Your task to perform on an android device: change notification settings in the gmail app Image 0: 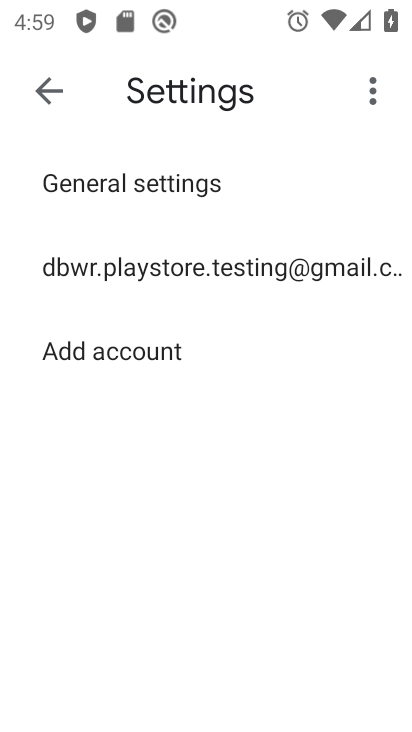
Step 0: press home button
Your task to perform on an android device: change notification settings in the gmail app Image 1: 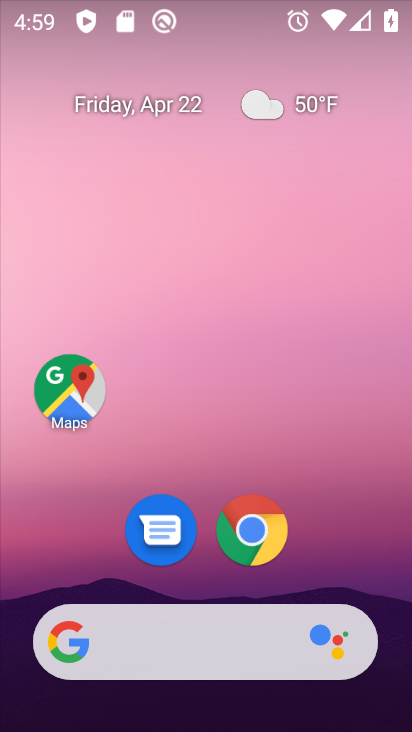
Step 1: drag from (357, 545) to (367, 123)
Your task to perform on an android device: change notification settings in the gmail app Image 2: 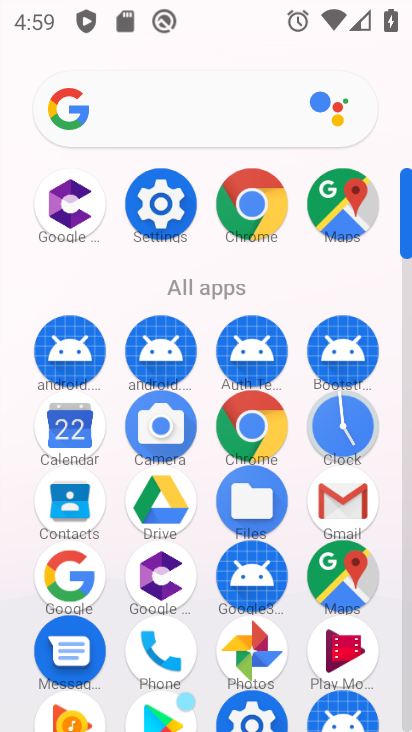
Step 2: drag from (290, 293) to (296, 58)
Your task to perform on an android device: change notification settings in the gmail app Image 3: 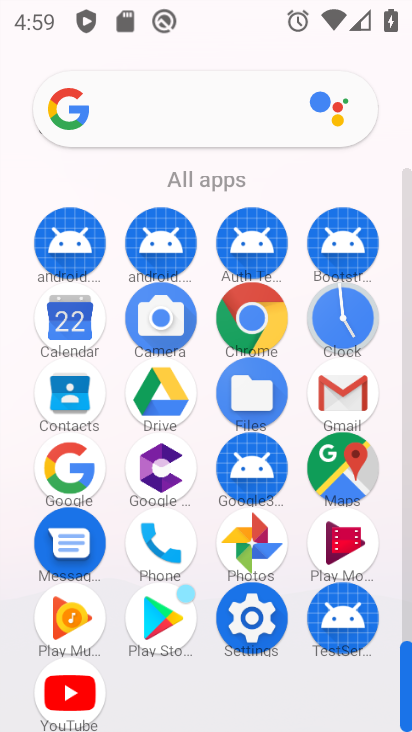
Step 3: click (347, 386)
Your task to perform on an android device: change notification settings in the gmail app Image 4: 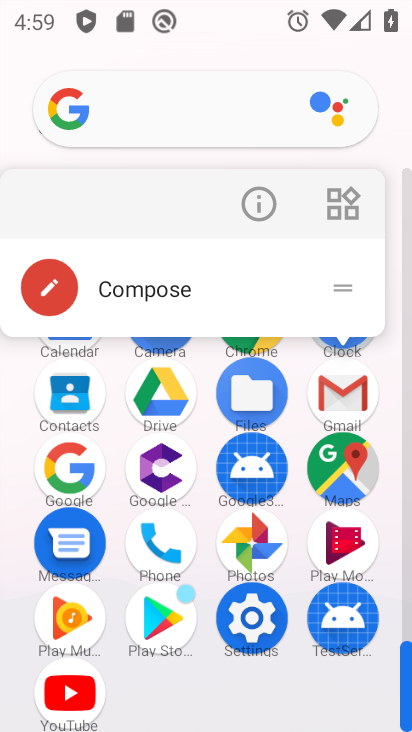
Step 4: click (259, 202)
Your task to perform on an android device: change notification settings in the gmail app Image 5: 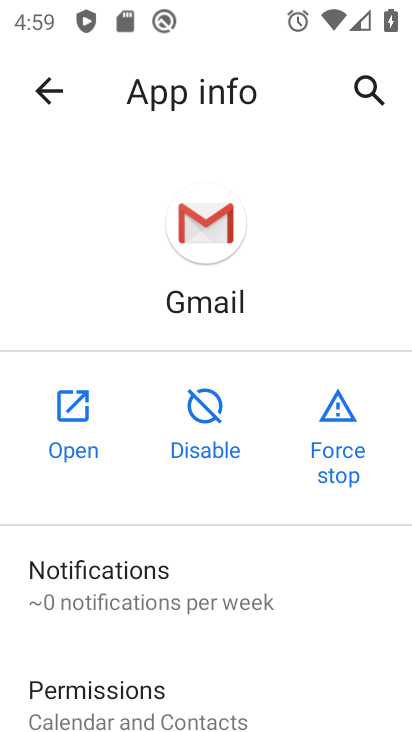
Step 5: drag from (228, 562) to (309, 245)
Your task to perform on an android device: change notification settings in the gmail app Image 6: 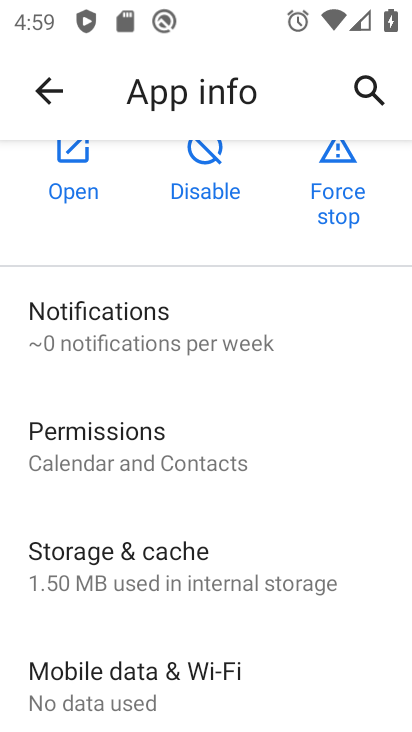
Step 6: click (145, 327)
Your task to perform on an android device: change notification settings in the gmail app Image 7: 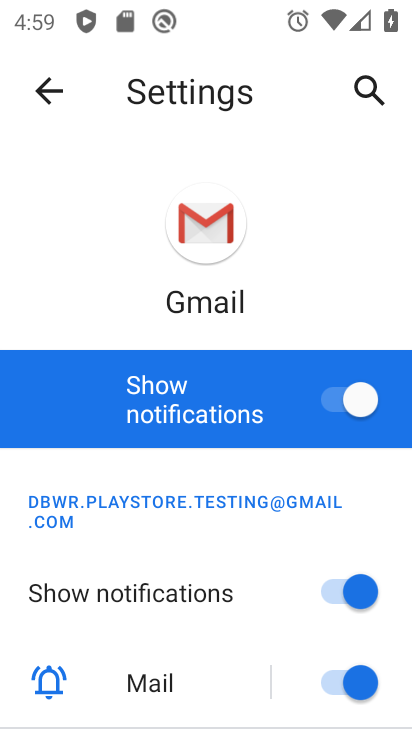
Step 7: drag from (249, 505) to (311, 246)
Your task to perform on an android device: change notification settings in the gmail app Image 8: 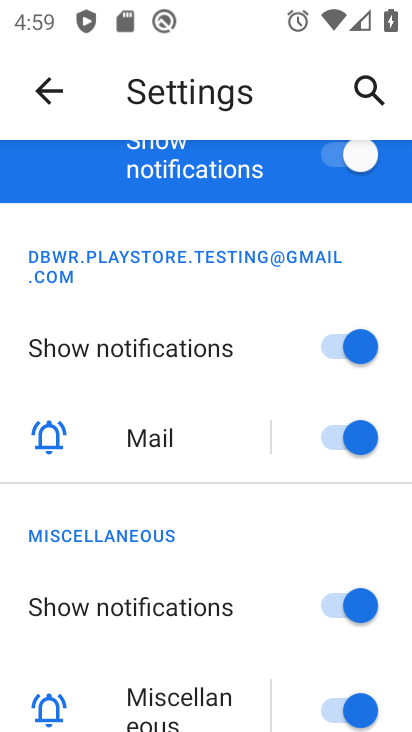
Step 8: drag from (275, 542) to (325, 264)
Your task to perform on an android device: change notification settings in the gmail app Image 9: 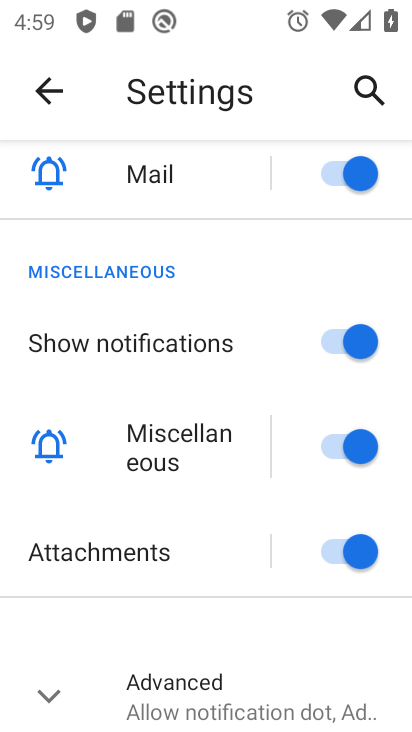
Step 9: drag from (278, 229) to (272, 664)
Your task to perform on an android device: change notification settings in the gmail app Image 10: 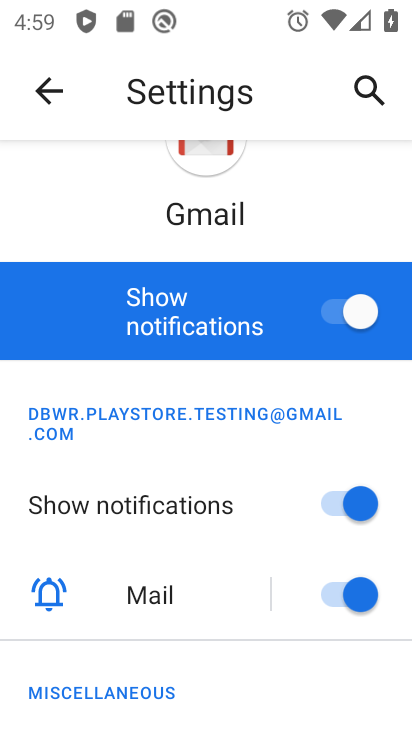
Step 10: click (333, 304)
Your task to perform on an android device: change notification settings in the gmail app Image 11: 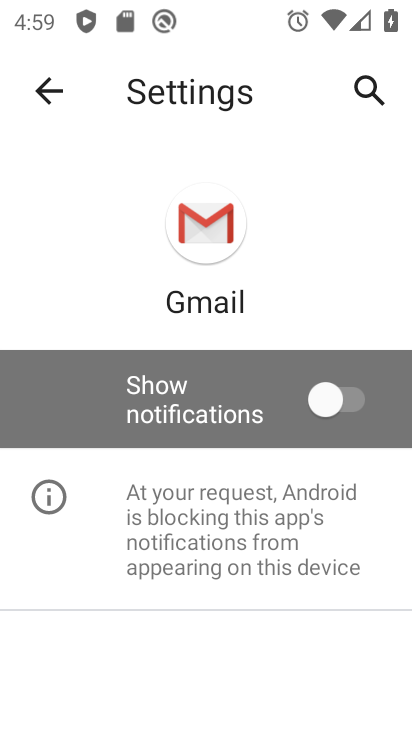
Step 11: task complete